Your task to perform on an android device: toggle notifications settings in the gmail app Image 0: 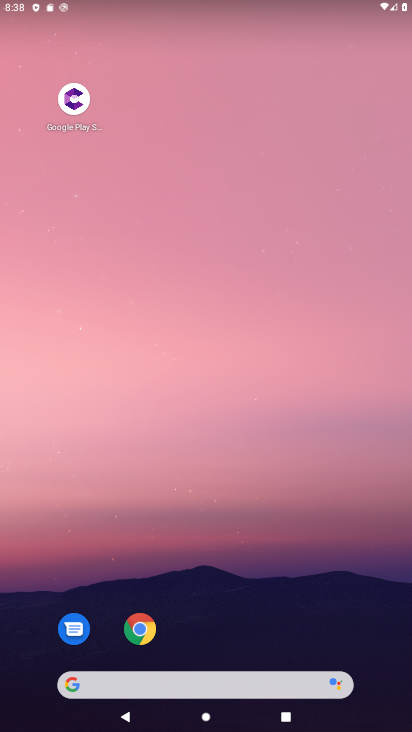
Step 0: drag from (180, 645) to (200, 178)
Your task to perform on an android device: toggle notifications settings in the gmail app Image 1: 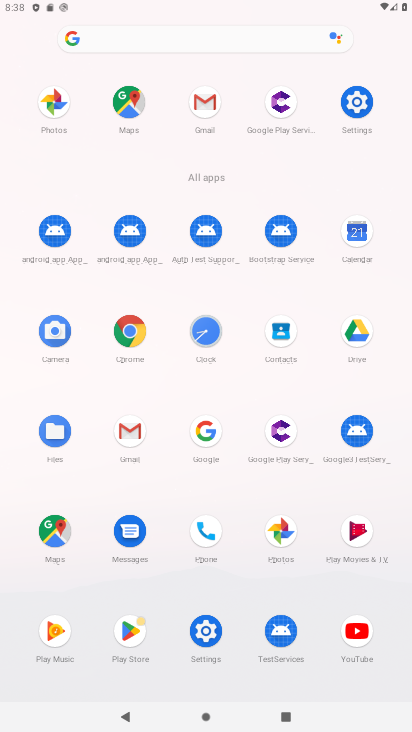
Step 1: click (363, 107)
Your task to perform on an android device: toggle notifications settings in the gmail app Image 2: 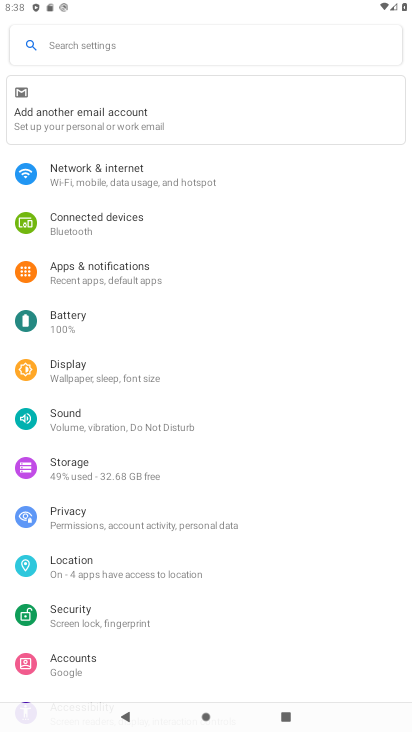
Step 2: click (102, 276)
Your task to perform on an android device: toggle notifications settings in the gmail app Image 3: 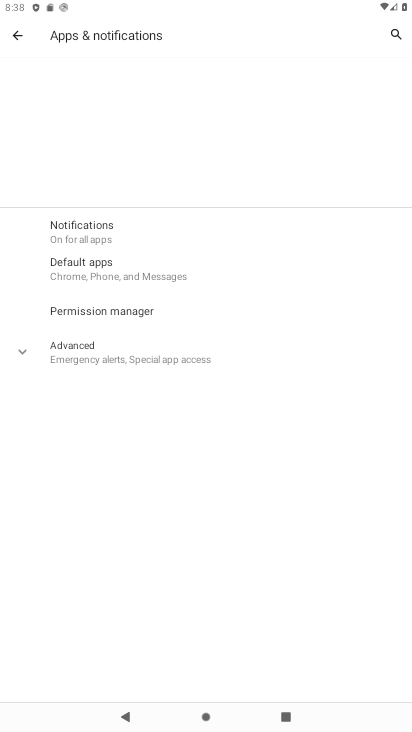
Step 3: click (102, 276)
Your task to perform on an android device: toggle notifications settings in the gmail app Image 4: 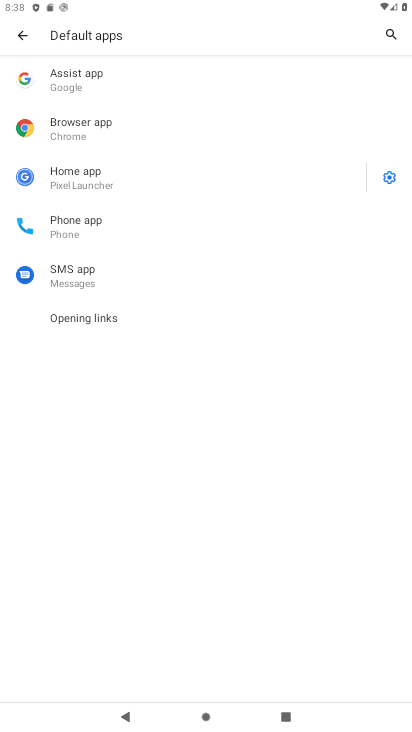
Step 4: click (20, 37)
Your task to perform on an android device: toggle notifications settings in the gmail app Image 5: 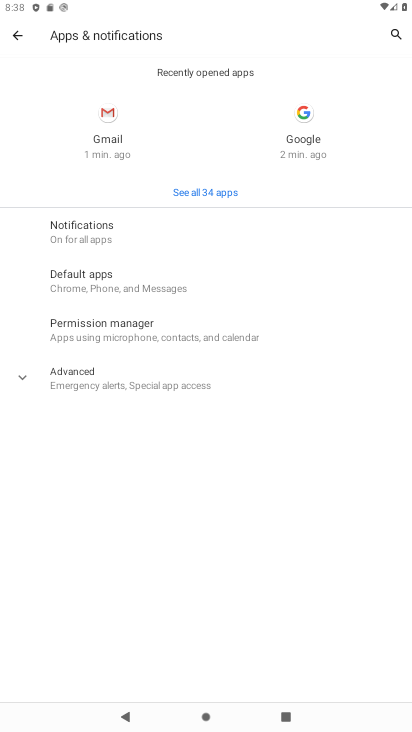
Step 5: click (111, 103)
Your task to perform on an android device: toggle notifications settings in the gmail app Image 6: 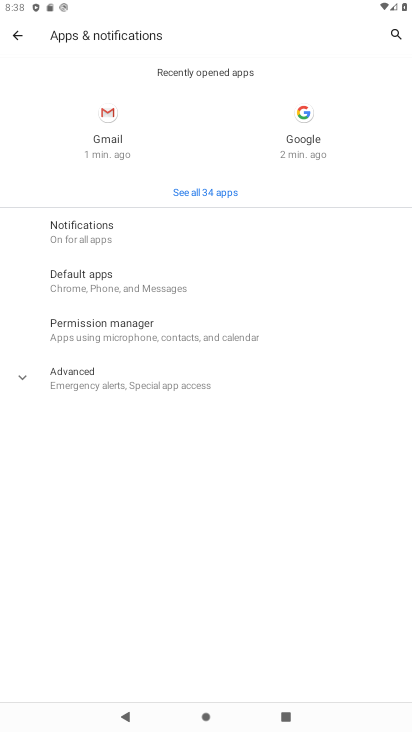
Step 6: click (97, 138)
Your task to perform on an android device: toggle notifications settings in the gmail app Image 7: 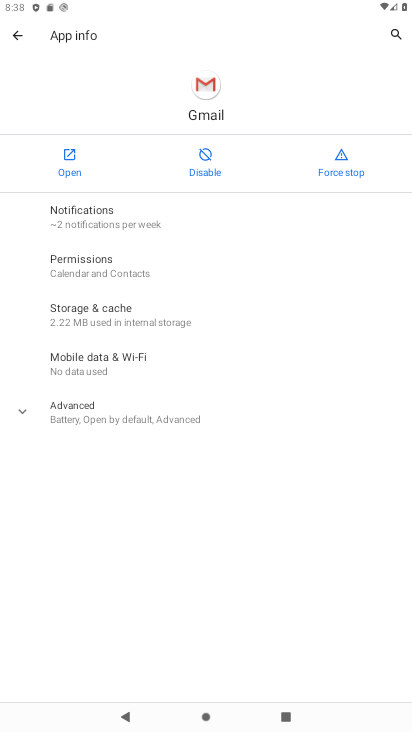
Step 7: click (121, 235)
Your task to perform on an android device: toggle notifications settings in the gmail app Image 8: 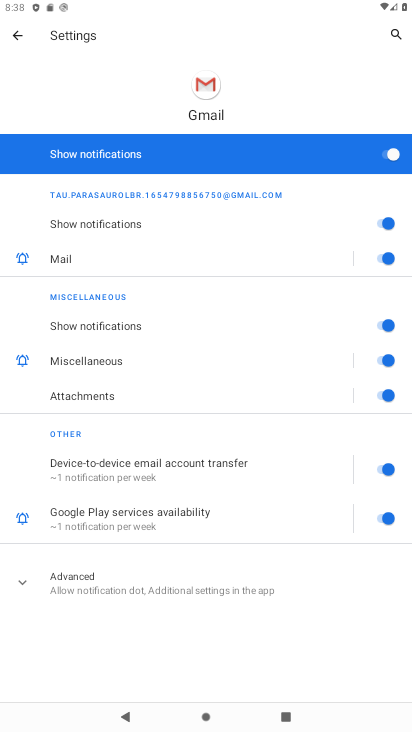
Step 8: click (379, 326)
Your task to perform on an android device: toggle notifications settings in the gmail app Image 9: 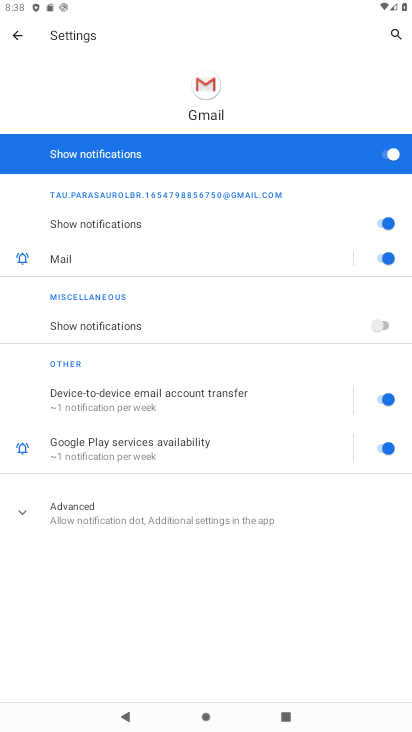
Step 9: click (387, 391)
Your task to perform on an android device: toggle notifications settings in the gmail app Image 10: 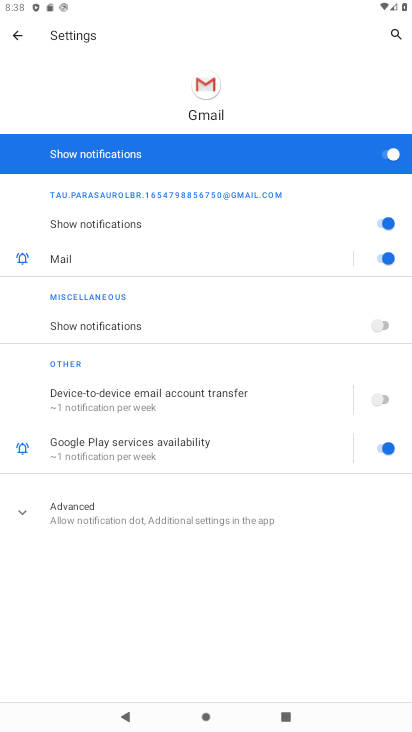
Step 10: click (393, 446)
Your task to perform on an android device: toggle notifications settings in the gmail app Image 11: 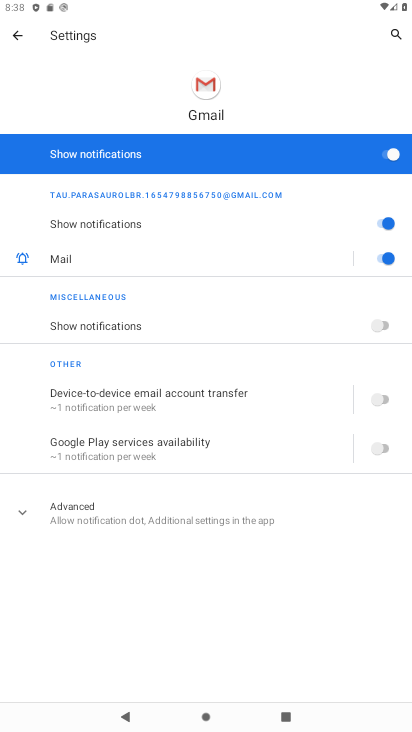
Step 11: click (385, 220)
Your task to perform on an android device: toggle notifications settings in the gmail app Image 12: 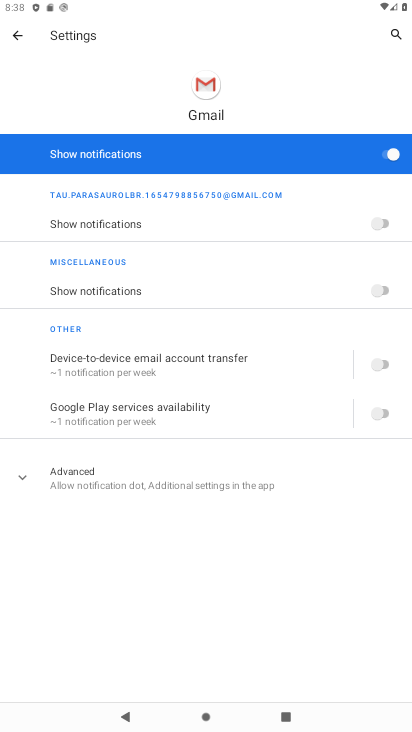
Step 12: task complete